Your task to perform on an android device: change the clock display to analog Image 0: 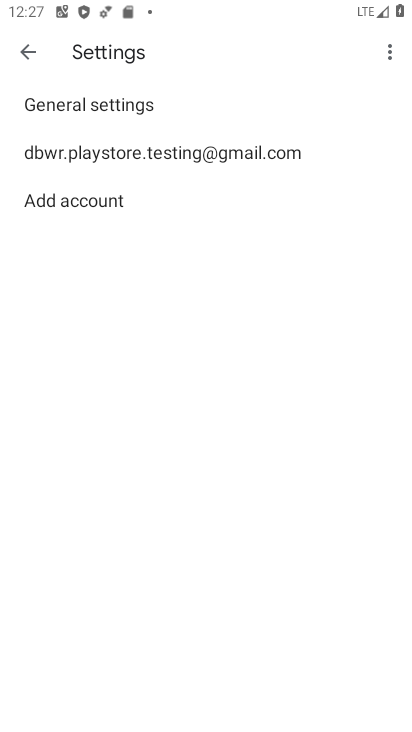
Step 0: press home button
Your task to perform on an android device: change the clock display to analog Image 1: 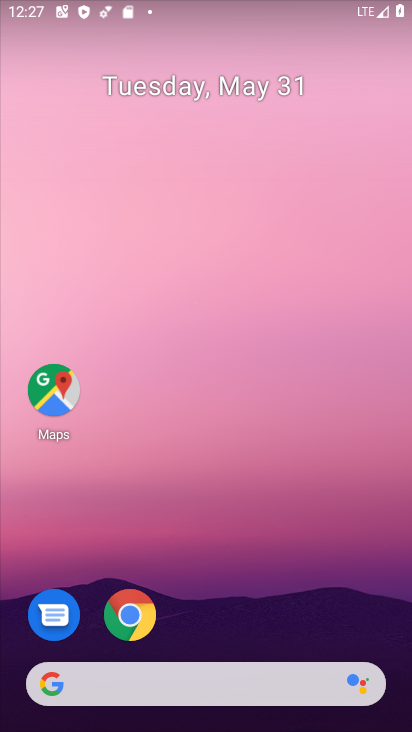
Step 1: drag from (209, 626) to (234, 345)
Your task to perform on an android device: change the clock display to analog Image 2: 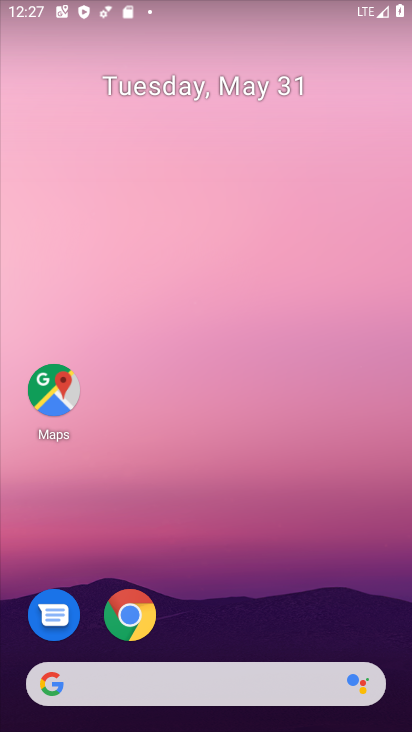
Step 2: drag from (207, 616) to (237, 273)
Your task to perform on an android device: change the clock display to analog Image 3: 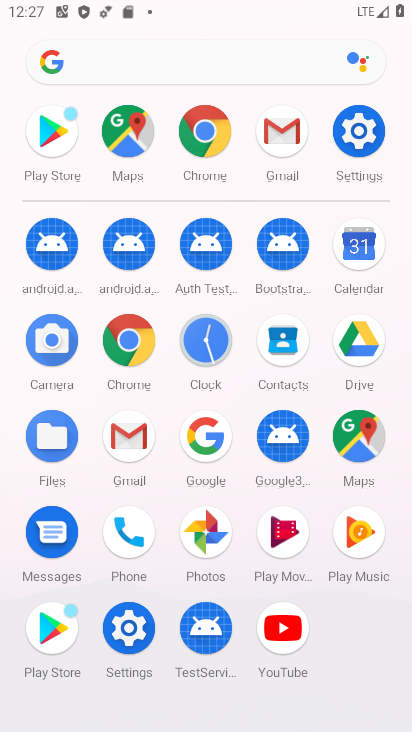
Step 3: click (194, 345)
Your task to perform on an android device: change the clock display to analog Image 4: 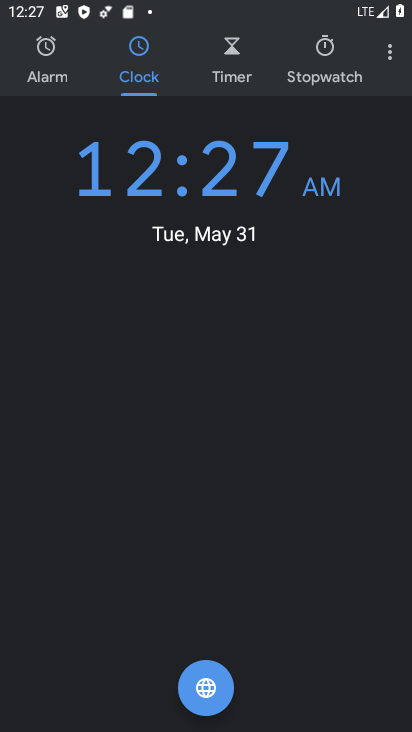
Step 4: click (395, 58)
Your task to perform on an android device: change the clock display to analog Image 5: 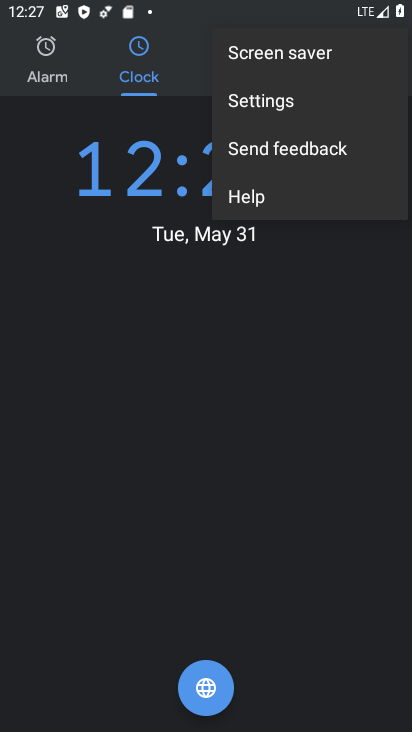
Step 5: click (282, 108)
Your task to perform on an android device: change the clock display to analog Image 6: 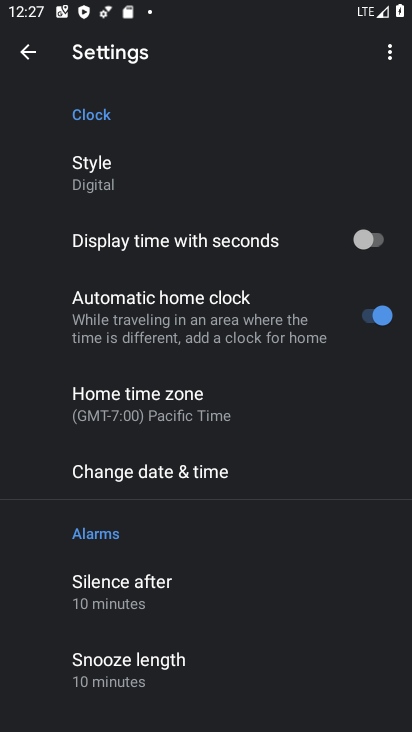
Step 6: click (152, 189)
Your task to perform on an android device: change the clock display to analog Image 7: 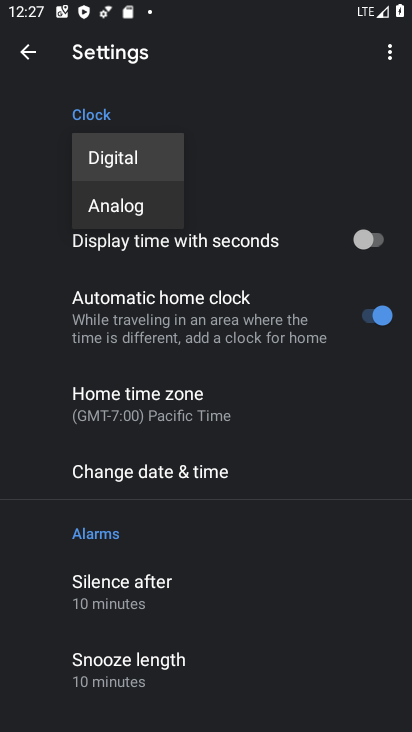
Step 7: click (143, 213)
Your task to perform on an android device: change the clock display to analog Image 8: 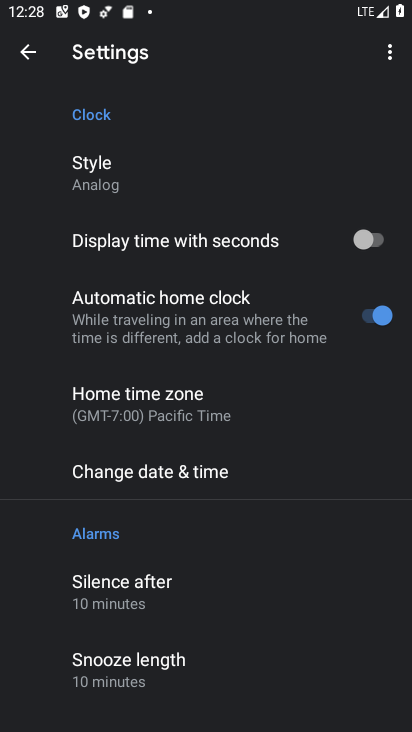
Step 8: task complete